Your task to perform on an android device: Check the news Image 0: 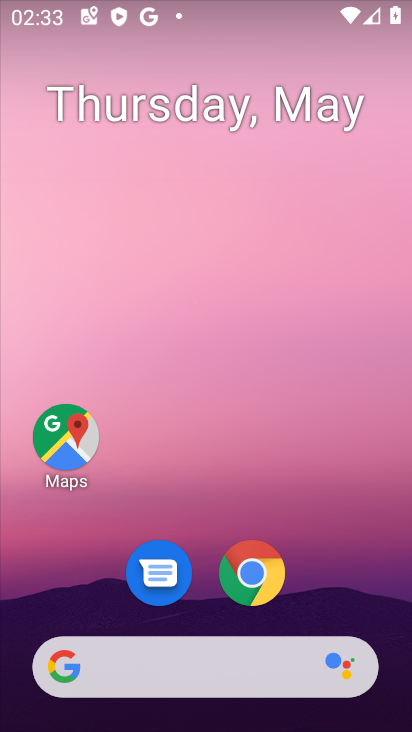
Step 0: click (253, 578)
Your task to perform on an android device: Check the news Image 1: 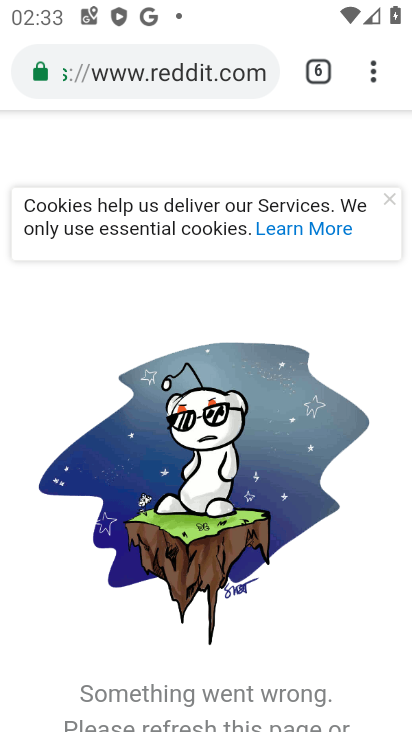
Step 1: click (375, 67)
Your task to perform on an android device: Check the news Image 2: 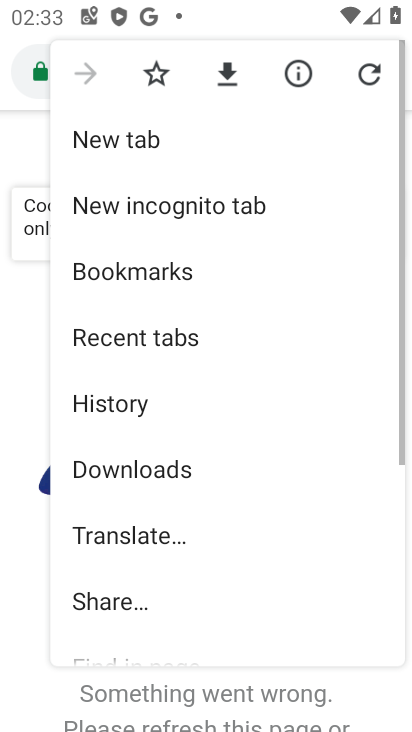
Step 2: click (132, 137)
Your task to perform on an android device: Check the news Image 3: 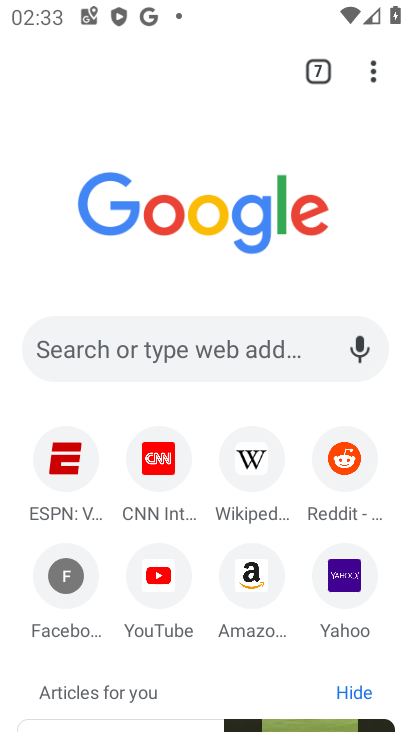
Step 3: click (207, 335)
Your task to perform on an android device: Check the news Image 4: 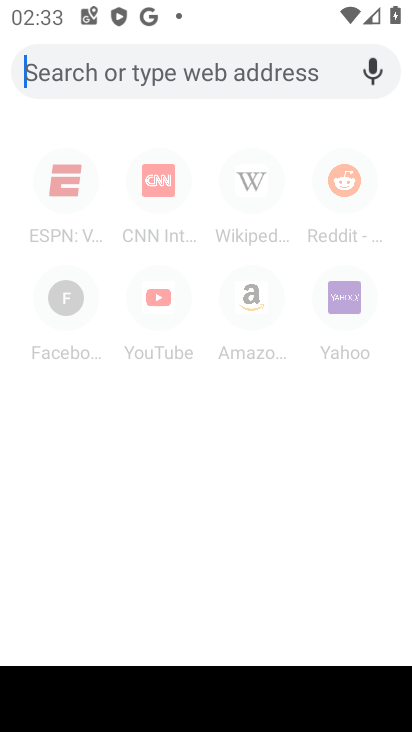
Step 4: type "Check the news"
Your task to perform on an android device: Check the news Image 5: 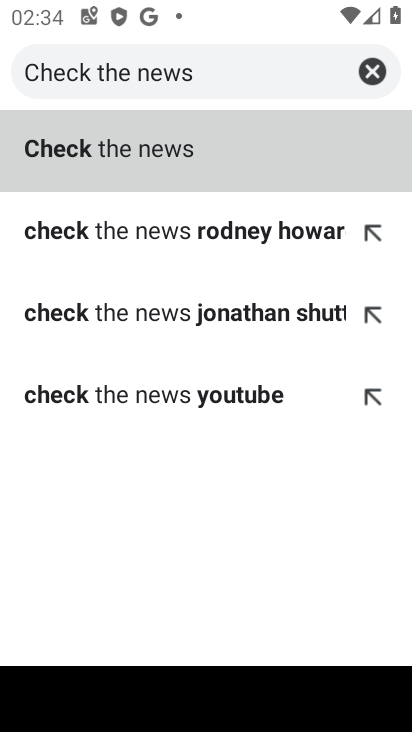
Step 5: click (125, 130)
Your task to perform on an android device: Check the news Image 6: 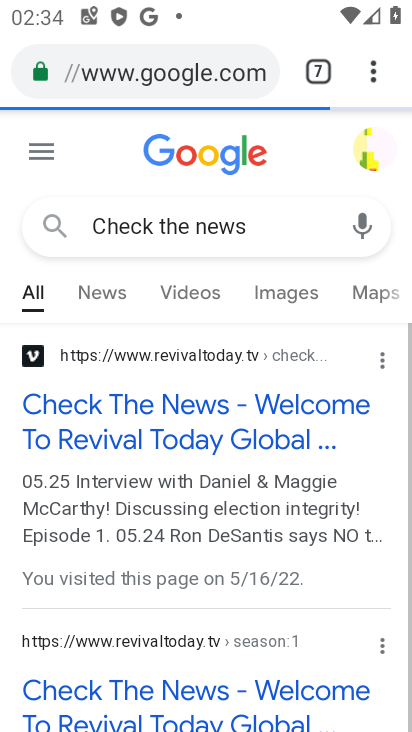
Step 6: task complete